Your task to perform on an android device: Open Google Image 0: 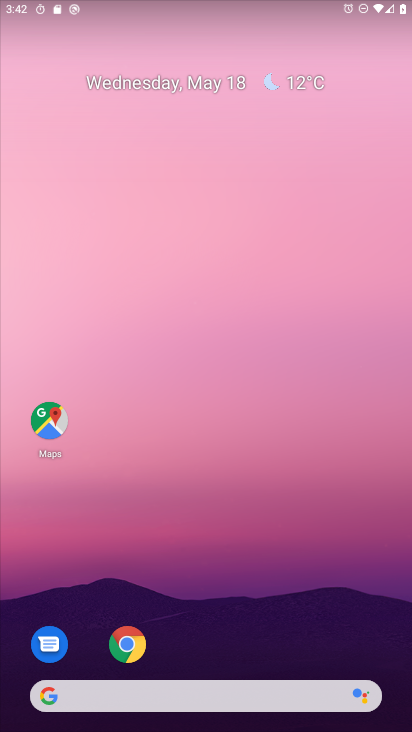
Step 0: drag from (382, 641) to (337, 167)
Your task to perform on an android device: Open Google Image 1: 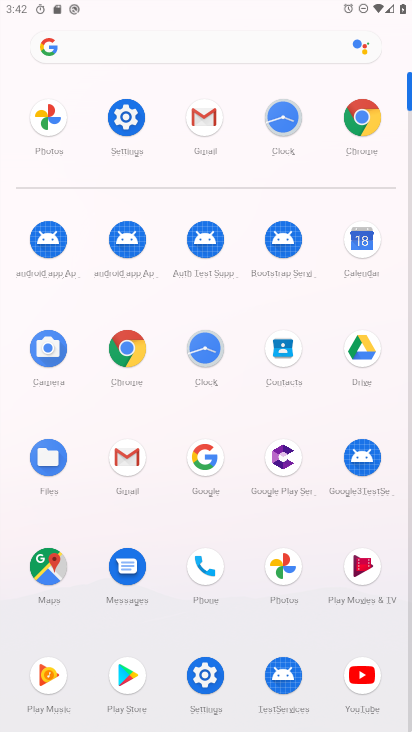
Step 1: click (212, 465)
Your task to perform on an android device: Open Google Image 2: 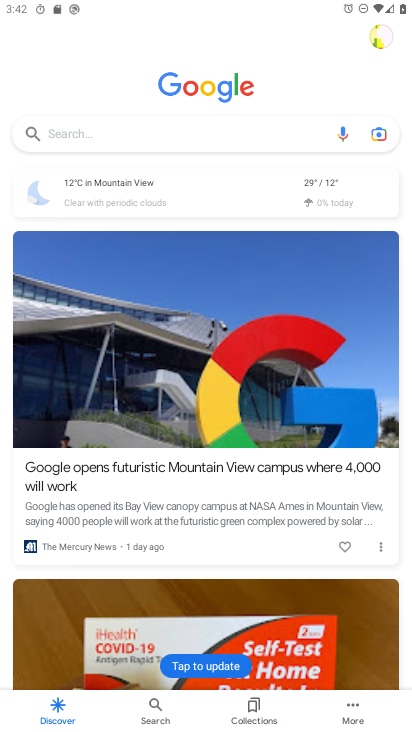
Step 2: task complete